Your task to perform on an android device: change the clock display to show seconds Image 0: 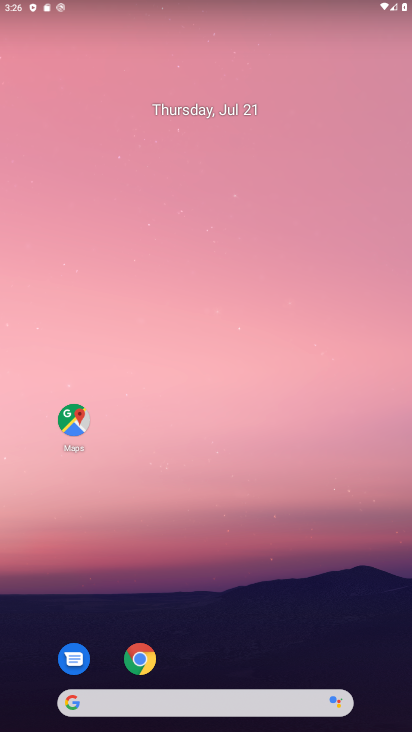
Step 0: drag from (208, 591) to (189, 65)
Your task to perform on an android device: change the clock display to show seconds Image 1: 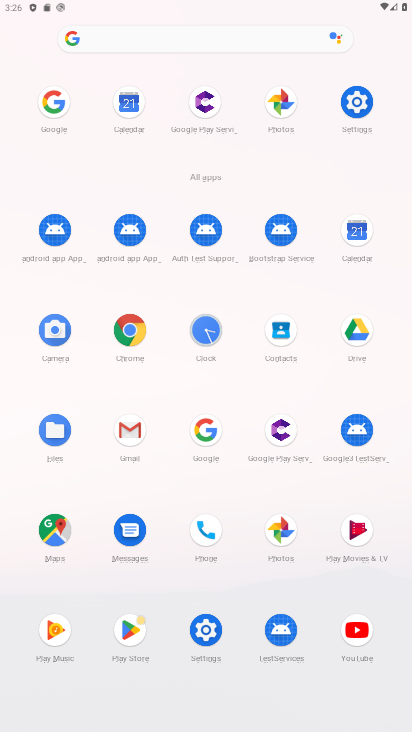
Step 1: click (200, 335)
Your task to perform on an android device: change the clock display to show seconds Image 2: 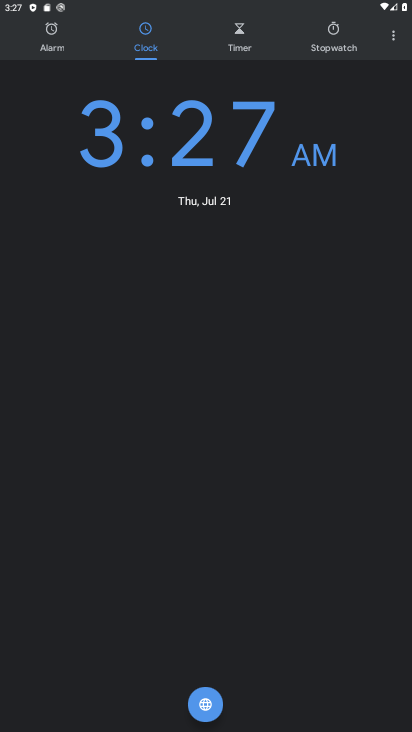
Step 2: click (392, 38)
Your task to perform on an android device: change the clock display to show seconds Image 3: 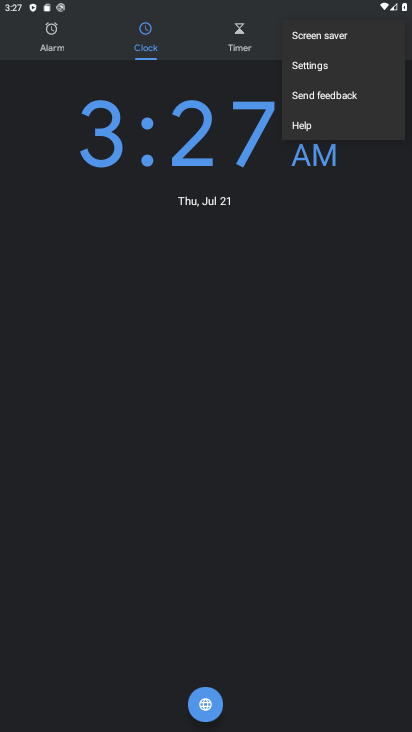
Step 3: click (314, 73)
Your task to perform on an android device: change the clock display to show seconds Image 4: 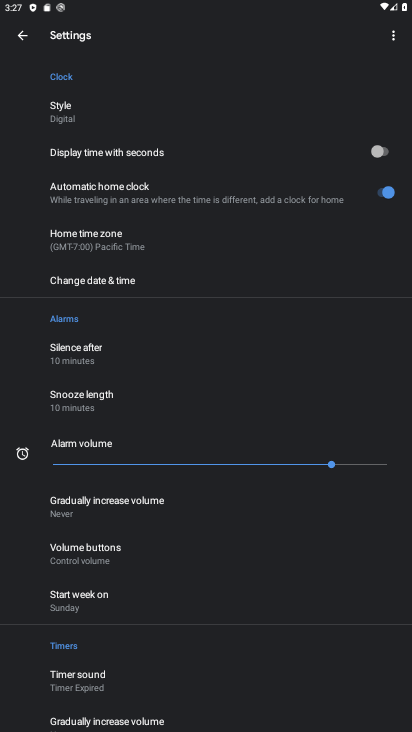
Step 4: click (61, 109)
Your task to perform on an android device: change the clock display to show seconds Image 5: 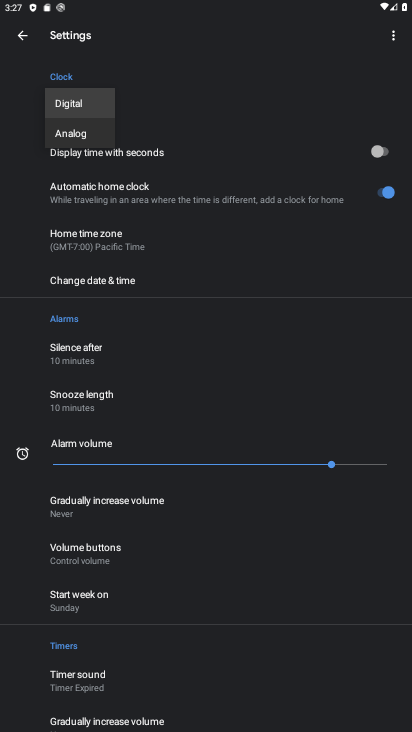
Step 5: click (379, 157)
Your task to perform on an android device: change the clock display to show seconds Image 6: 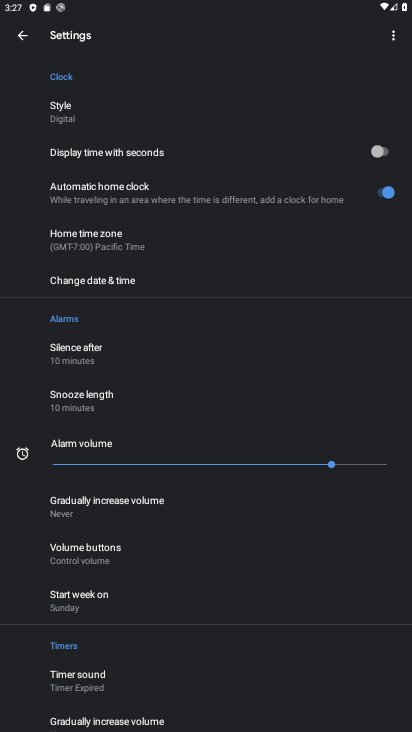
Step 6: click (379, 149)
Your task to perform on an android device: change the clock display to show seconds Image 7: 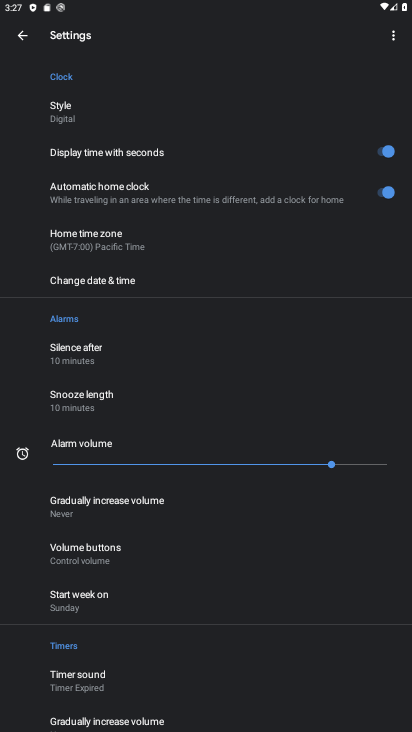
Step 7: task complete